Your task to perform on an android device: allow cookies in the chrome app Image 0: 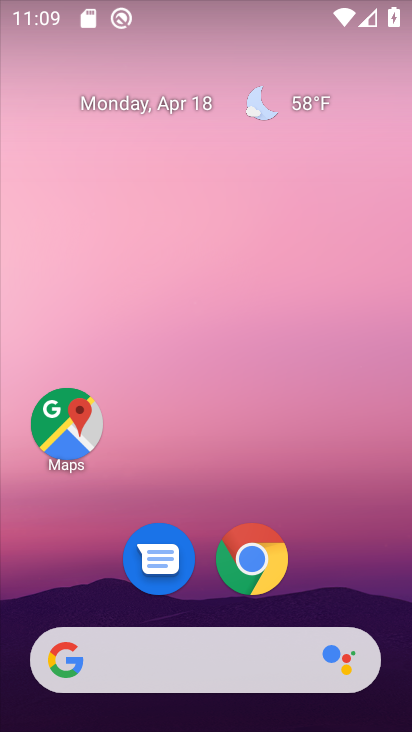
Step 0: click (259, 561)
Your task to perform on an android device: allow cookies in the chrome app Image 1: 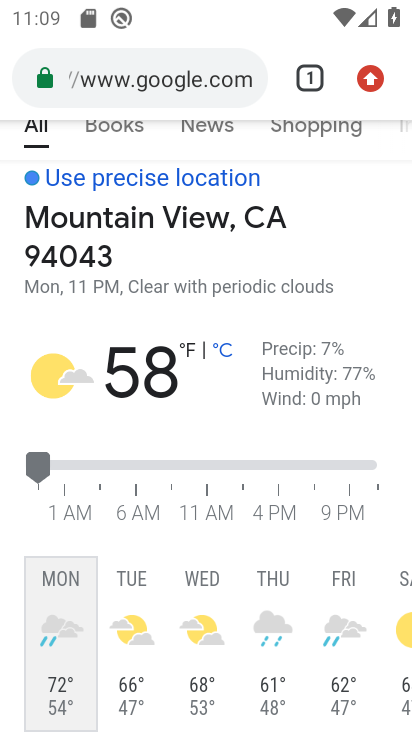
Step 1: click (373, 76)
Your task to perform on an android device: allow cookies in the chrome app Image 2: 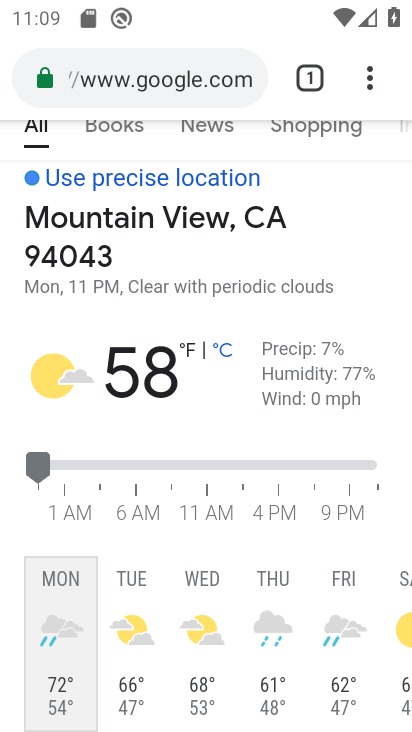
Step 2: click (364, 77)
Your task to perform on an android device: allow cookies in the chrome app Image 3: 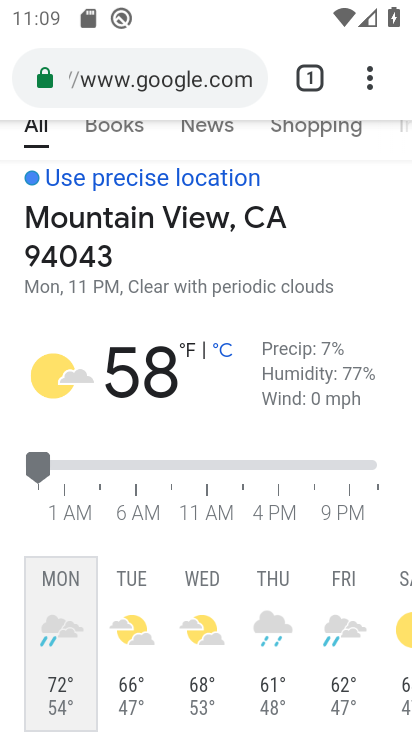
Step 3: click (370, 77)
Your task to perform on an android device: allow cookies in the chrome app Image 4: 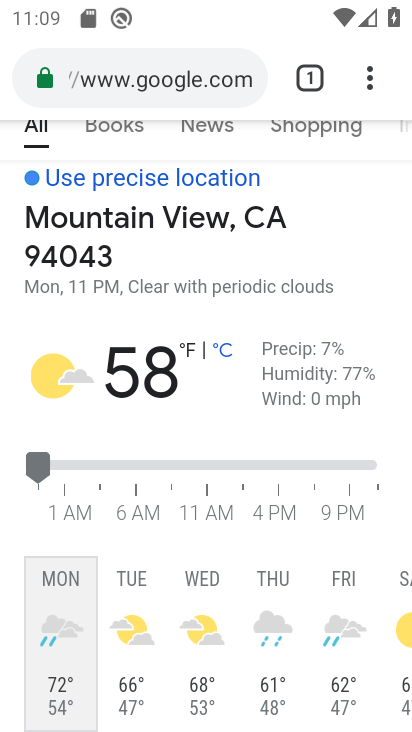
Step 4: click (365, 78)
Your task to perform on an android device: allow cookies in the chrome app Image 5: 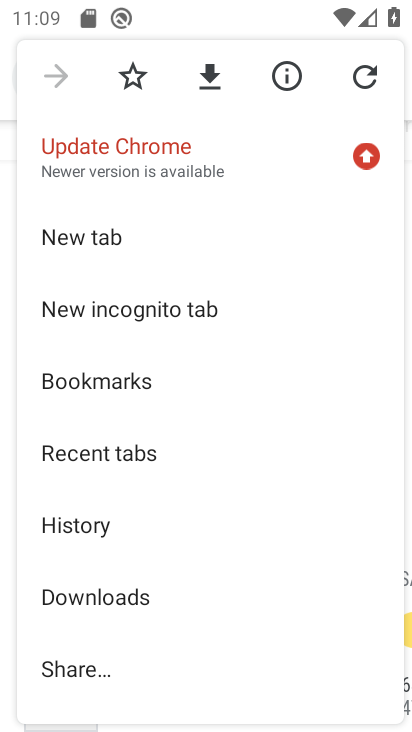
Step 5: drag from (204, 638) to (198, 253)
Your task to perform on an android device: allow cookies in the chrome app Image 6: 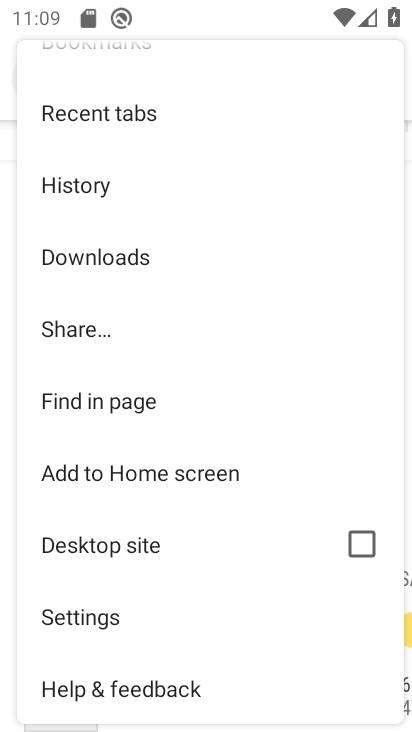
Step 6: click (98, 618)
Your task to perform on an android device: allow cookies in the chrome app Image 7: 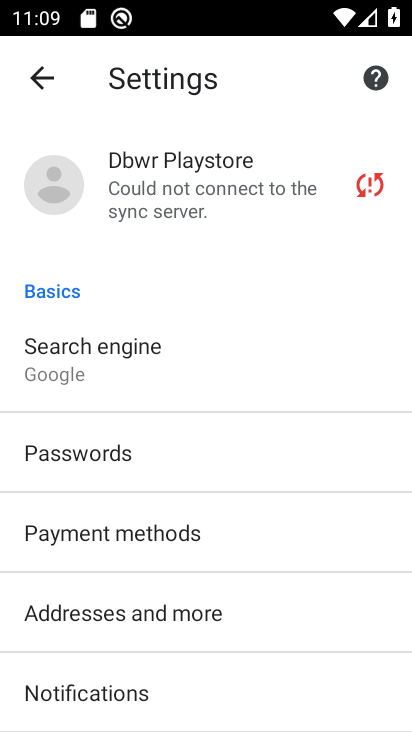
Step 7: drag from (144, 669) to (115, 266)
Your task to perform on an android device: allow cookies in the chrome app Image 8: 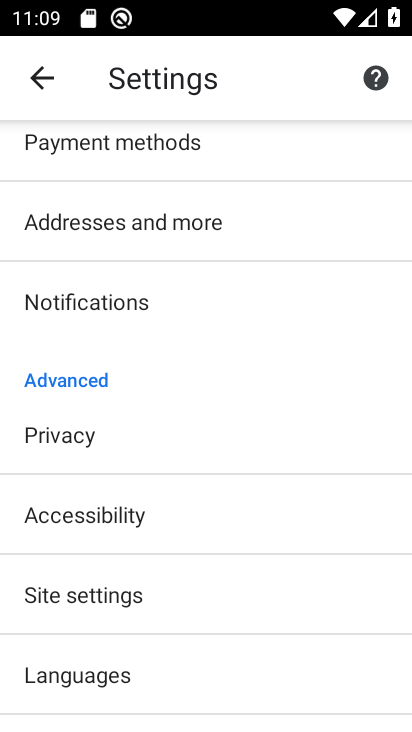
Step 8: click (60, 591)
Your task to perform on an android device: allow cookies in the chrome app Image 9: 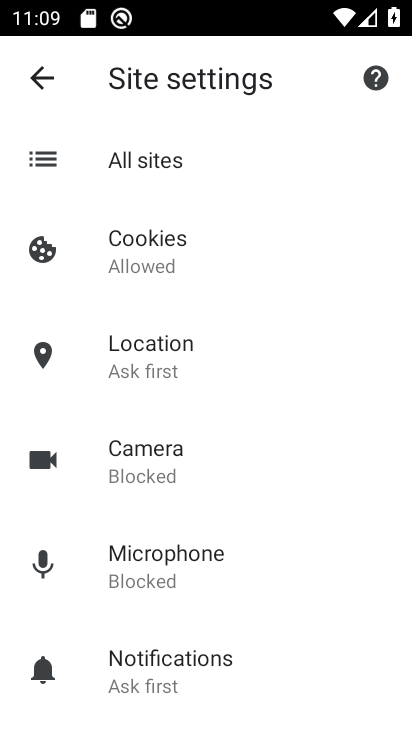
Step 9: click (147, 254)
Your task to perform on an android device: allow cookies in the chrome app Image 10: 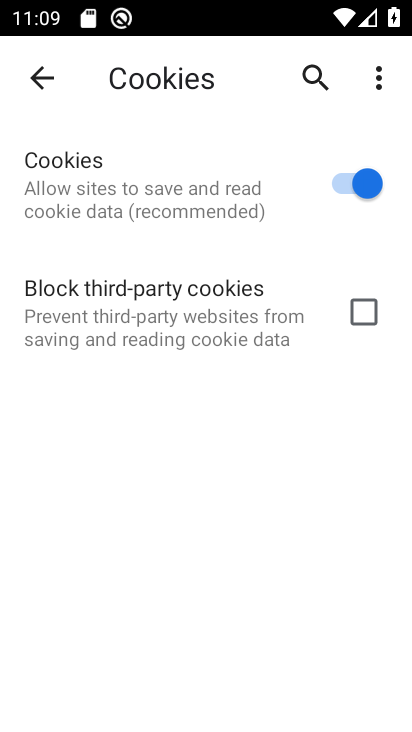
Step 10: task complete